Your task to perform on an android device: Open Google Maps and go to "Timeline" Image 0: 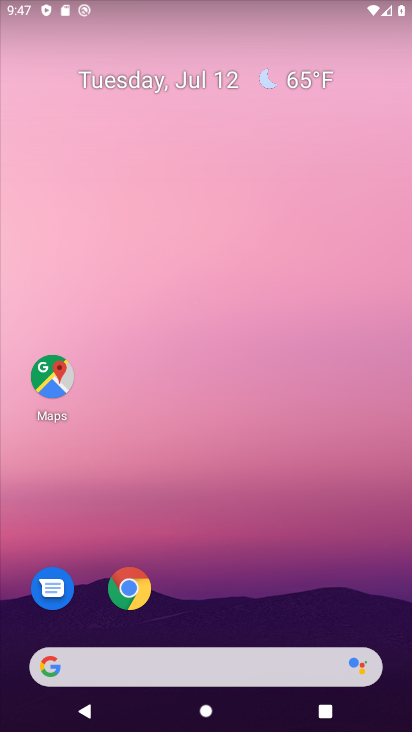
Step 0: click (57, 369)
Your task to perform on an android device: Open Google Maps and go to "Timeline" Image 1: 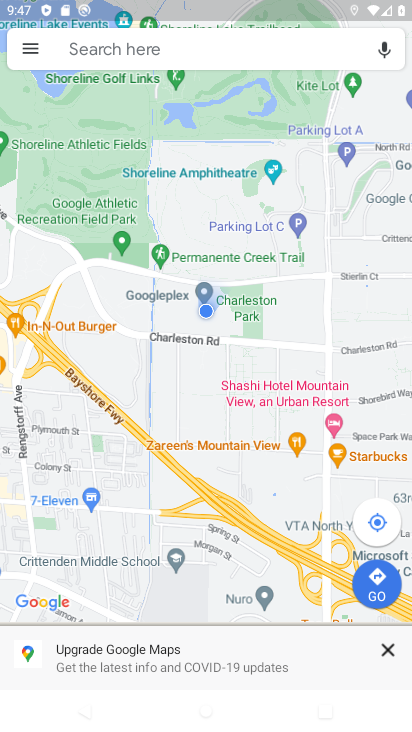
Step 1: click (24, 41)
Your task to perform on an android device: Open Google Maps and go to "Timeline" Image 2: 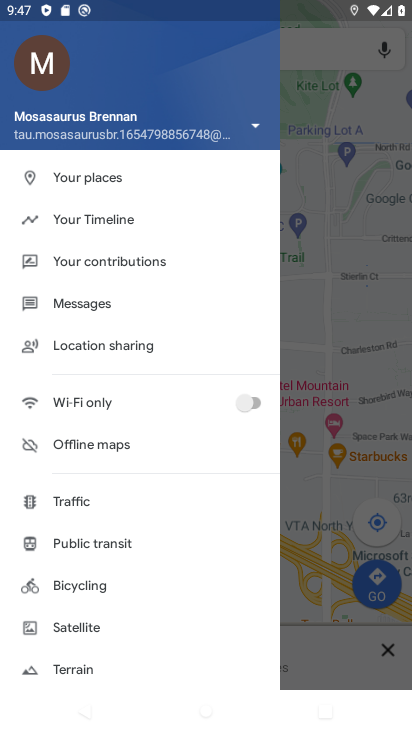
Step 2: click (99, 213)
Your task to perform on an android device: Open Google Maps and go to "Timeline" Image 3: 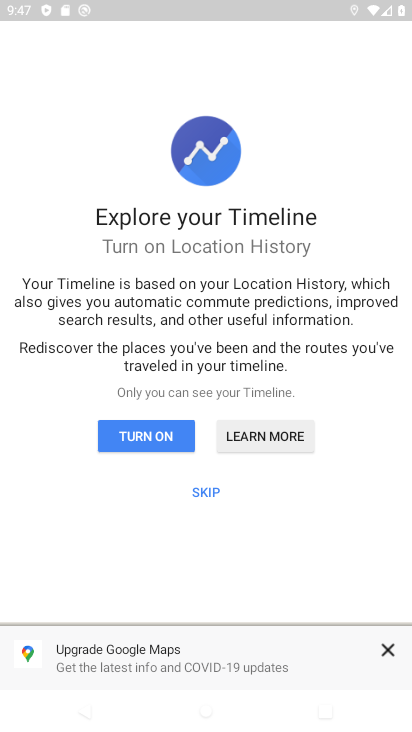
Step 3: click (206, 492)
Your task to perform on an android device: Open Google Maps and go to "Timeline" Image 4: 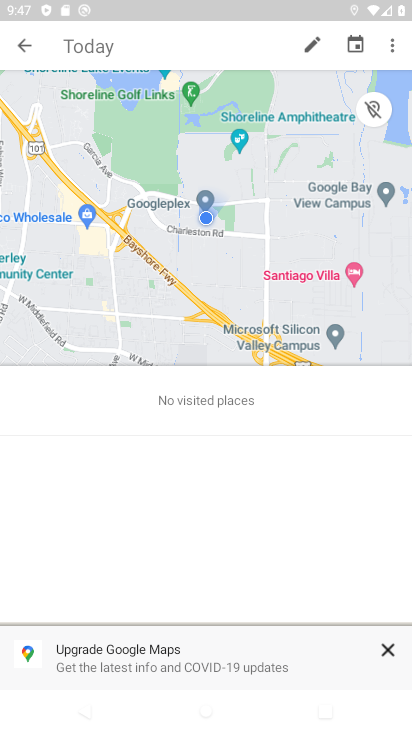
Step 4: task complete